Your task to perform on an android device: choose inbox layout in the gmail app Image 0: 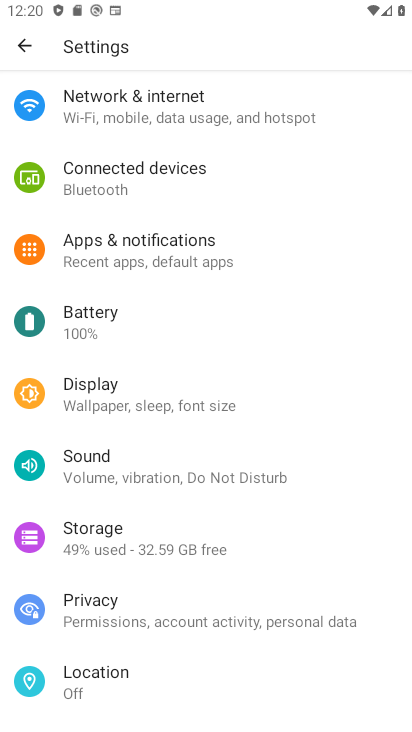
Step 0: press home button
Your task to perform on an android device: choose inbox layout in the gmail app Image 1: 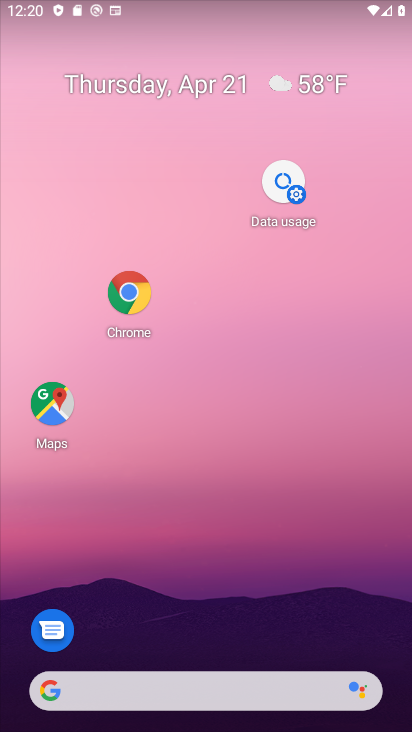
Step 1: drag from (210, 602) to (192, 273)
Your task to perform on an android device: choose inbox layout in the gmail app Image 2: 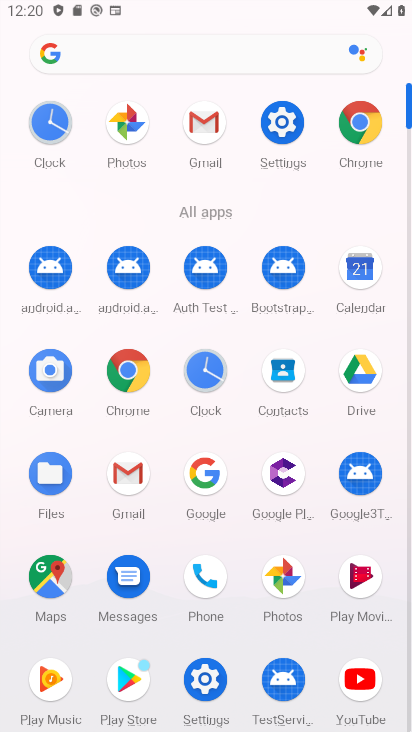
Step 2: click (191, 133)
Your task to perform on an android device: choose inbox layout in the gmail app Image 3: 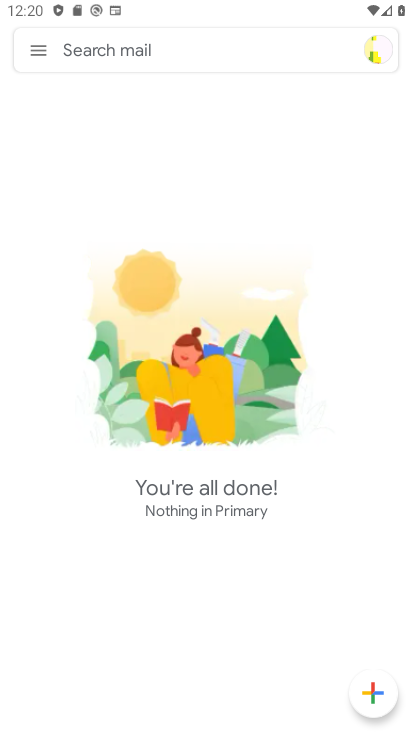
Step 3: click (52, 46)
Your task to perform on an android device: choose inbox layout in the gmail app Image 4: 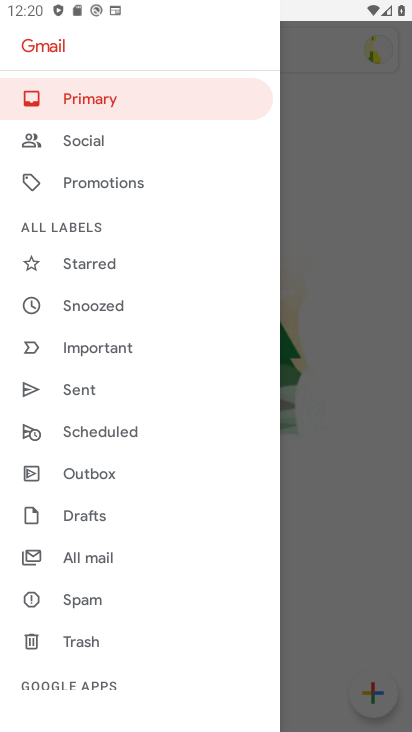
Step 4: drag from (94, 664) to (107, 303)
Your task to perform on an android device: choose inbox layout in the gmail app Image 5: 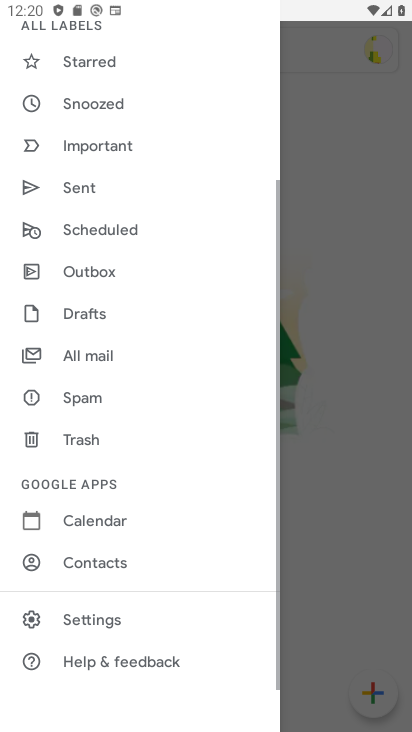
Step 5: click (95, 621)
Your task to perform on an android device: choose inbox layout in the gmail app Image 6: 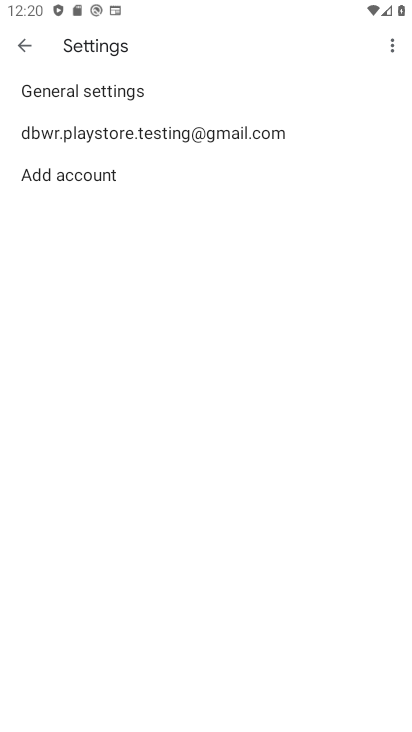
Step 6: click (79, 142)
Your task to perform on an android device: choose inbox layout in the gmail app Image 7: 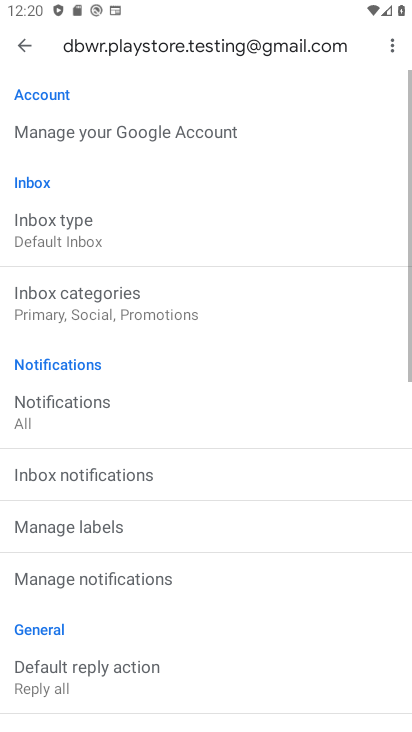
Step 7: click (88, 229)
Your task to perform on an android device: choose inbox layout in the gmail app Image 8: 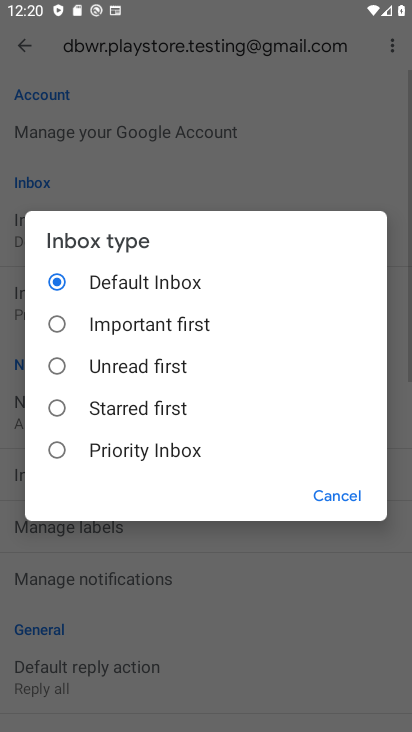
Step 8: click (109, 460)
Your task to perform on an android device: choose inbox layout in the gmail app Image 9: 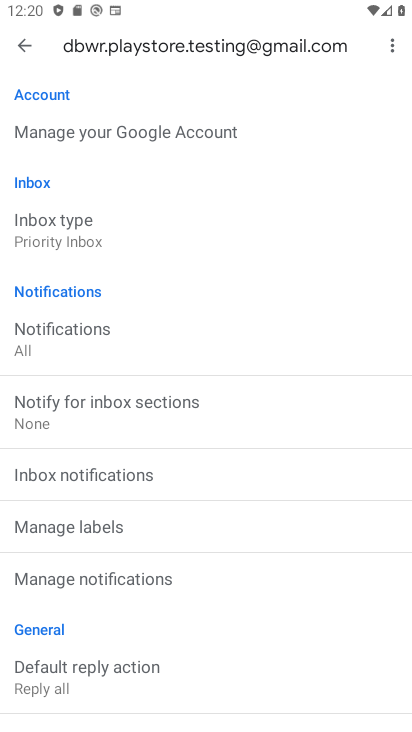
Step 9: task complete